Your task to perform on an android device: turn off smart reply in the gmail app Image 0: 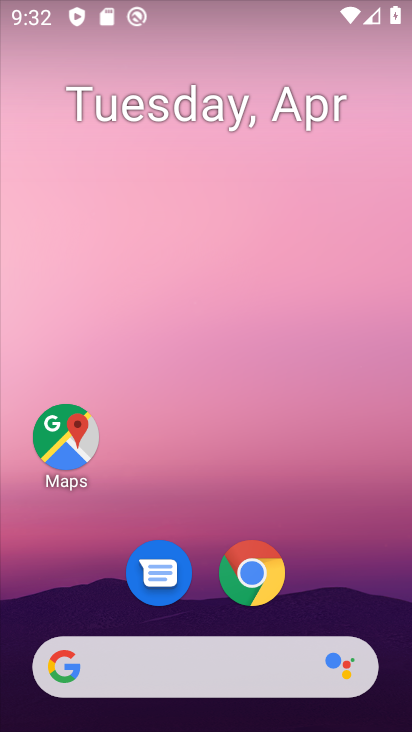
Step 0: drag from (380, 633) to (358, 8)
Your task to perform on an android device: turn off smart reply in the gmail app Image 1: 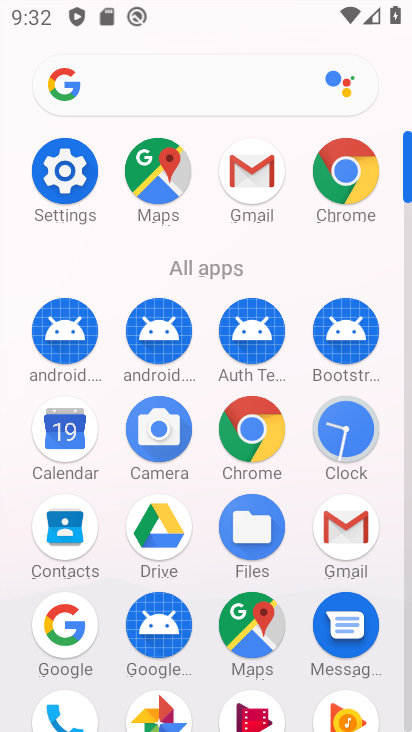
Step 1: click (251, 175)
Your task to perform on an android device: turn off smart reply in the gmail app Image 2: 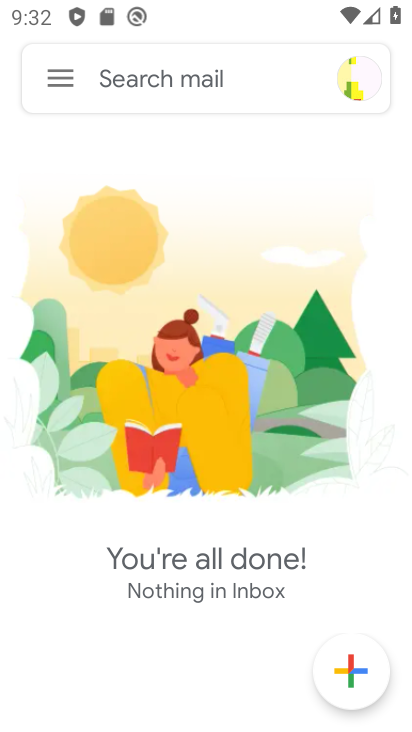
Step 2: click (57, 76)
Your task to perform on an android device: turn off smart reply in the gmail app Image 3: 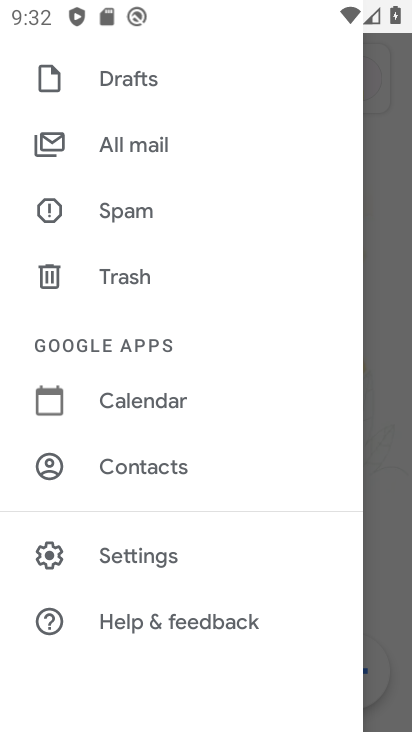
Step 3: click (112, 552)
Your task to perform on an android device: turn off smart reply in the gmail app Image 4: 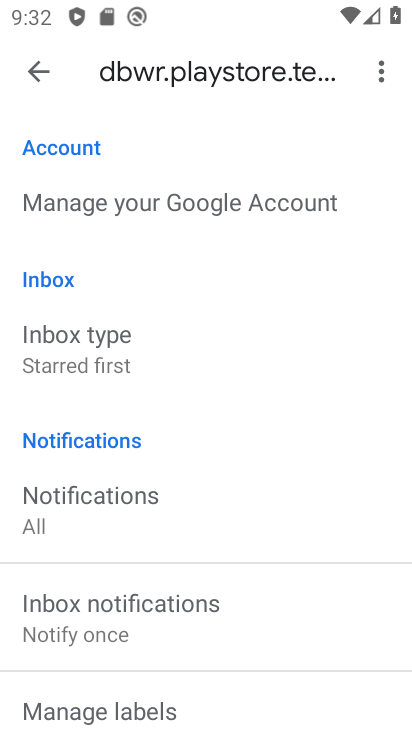
Step 4: drag from (274, 552) to (264, 263)
Your task to perform on an android device: turn off smart reply in the gmail app Image 5: 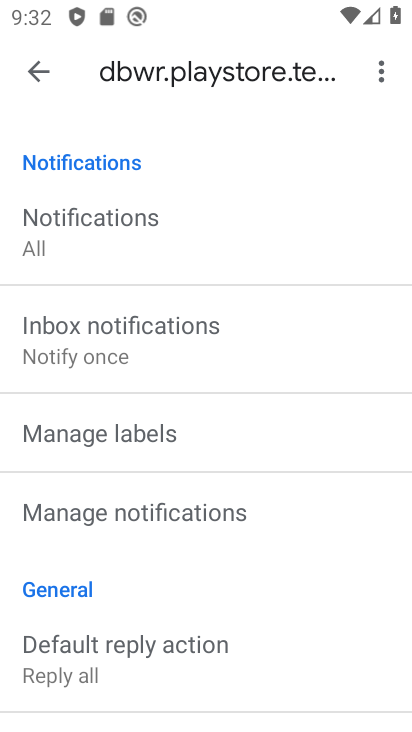
Step 5: drag from (255, 525) to (220, 158)
Your task to perform on an android device: turn off smart reply in the gmail app Image 6: 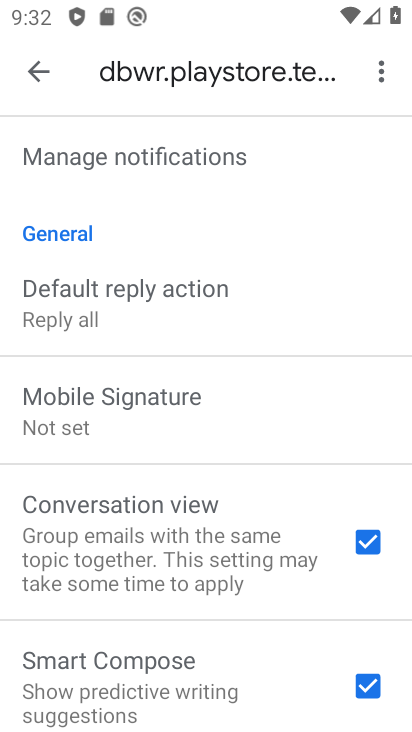
Step 6: drag from (202, 523) to (177, 146)
Your task to perform on an android device: turn off smart reply in the gmail app Image 7: 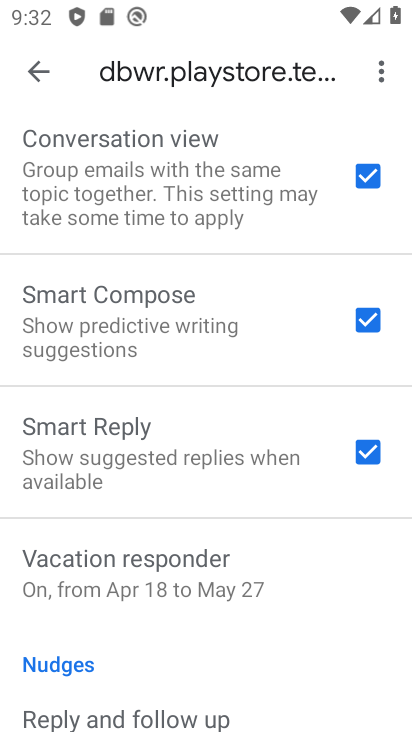
Step 7: click (366, 458)
Your task to perform on an android device: turn off smart reply in the gmail app Image 8: 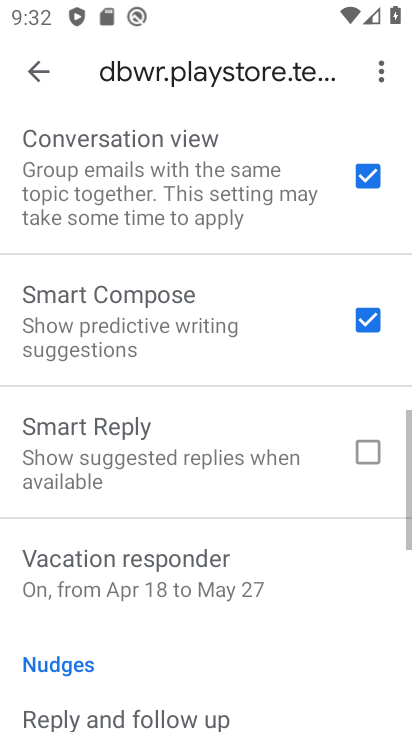
Step 8: task complete